Your task to perform on an android device: Do I have any events today? Image 0: 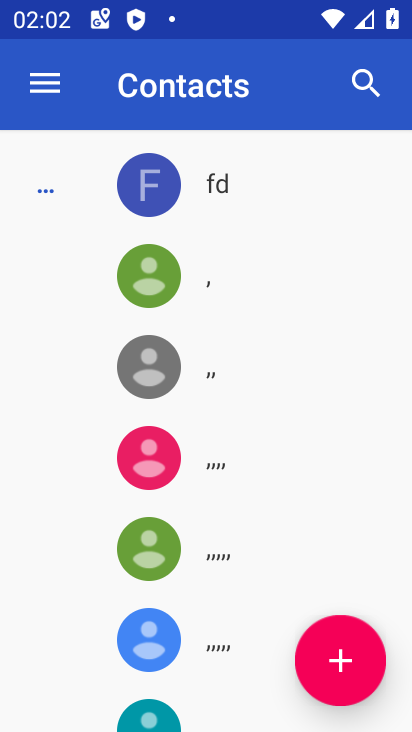
Step 0: press home button
Your task to perform on an android device: Do I have any events today? Image 1: 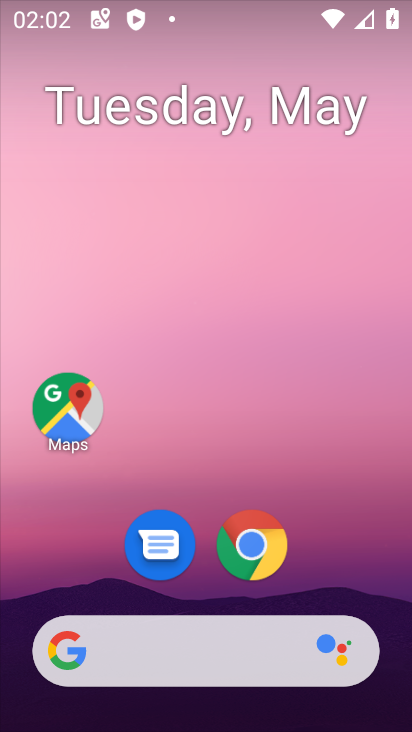
Step 1: drag from (394, 596) to (305, 126)
Your task to perform on an android device: Do I have any events today? Image 2: 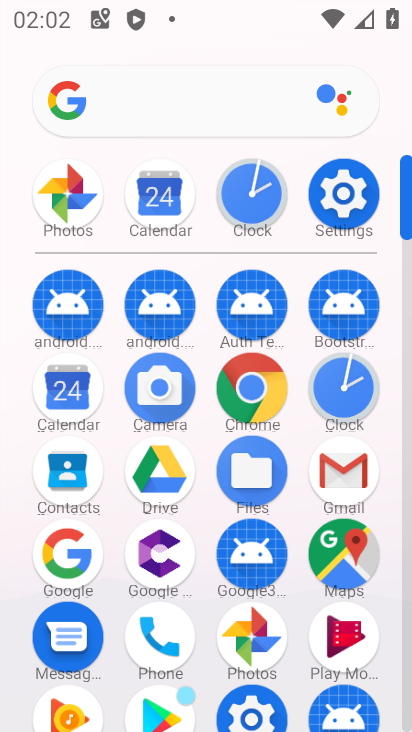
Step 2: click (406, 686)
Your task to perform on an android device: Do I have any events today? Image 3: 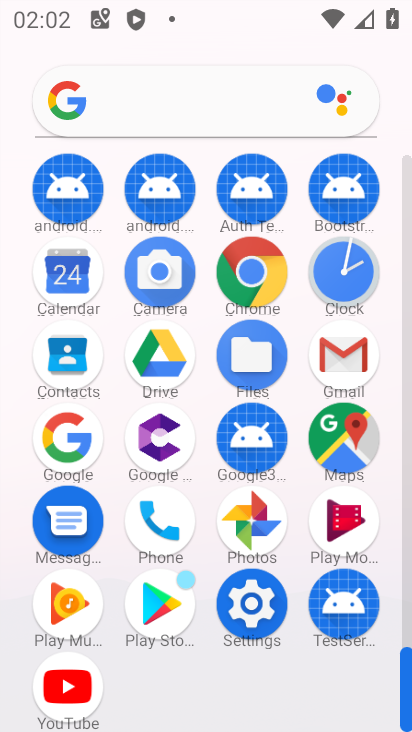
Step 3: click (62, 268)
Your task to perform on an android device: Do I have any events today? Image 4: 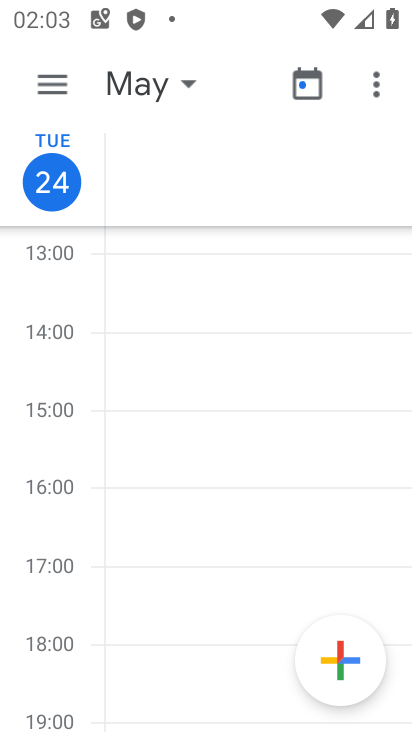
Step 4: task complete